Your task to perform on an android device: Search for the best 4k TVs Image 0: 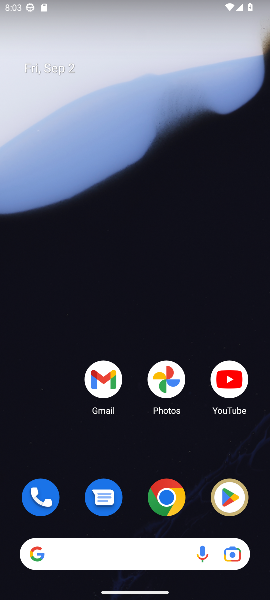
Step 0: click (143, 26)
Your task to perform on an android device: Search for the best 4k TVs Image 1: 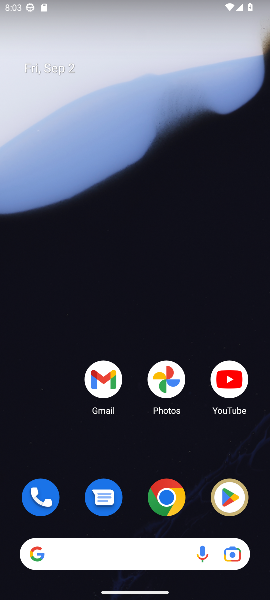
Step 1: click (130, 117)
Your task to perform on an android device: Search for the best 4k TVs Image 2: 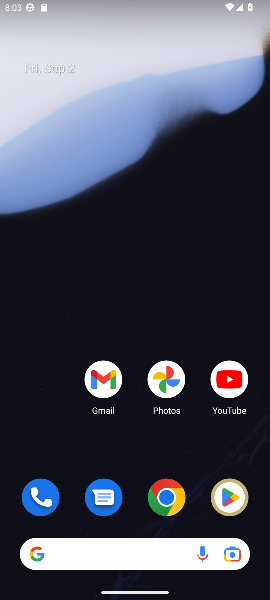
Step 2: drag from (130, 519) to (102, 21)
Your task to perform on an android device: Search for the best 4k TVs Image 3: 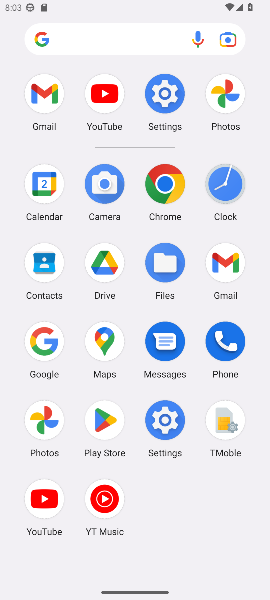
Step 3: click (39, 336)
Your task to perform on an android device: Search for the best 4k TVs Image 4: 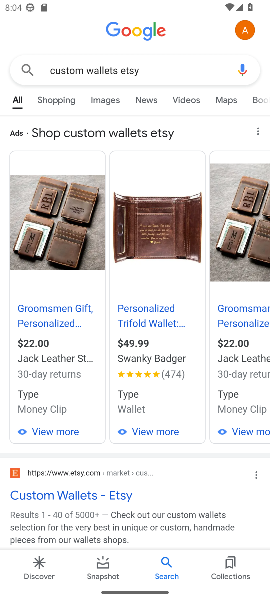
Step 4: click (184, 67)
Your task to perform on an android device: Search for the best 4k TVs Image 5: 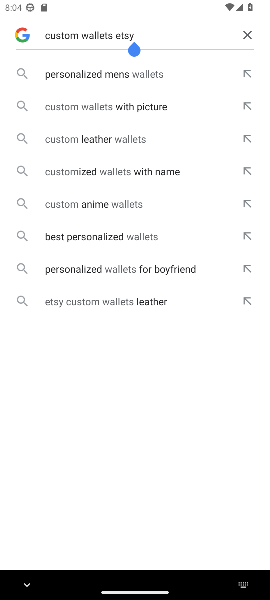
Step 5: click (249, 31)
Your task to perform on an android device: Search for the best 4k TVs Image 6: 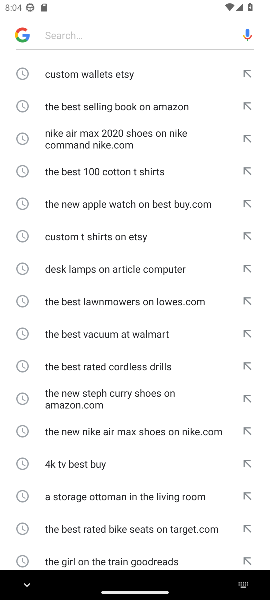
Step 6: type " the best 4k TVs"
Your task to perform on an android device: Search for the best 4k TVs Image 7: 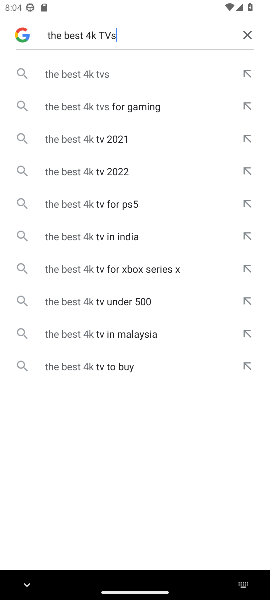
Step 7: click (64, 72)
Your task to perform on an android device: Search for the best 4k TVs Image 8: 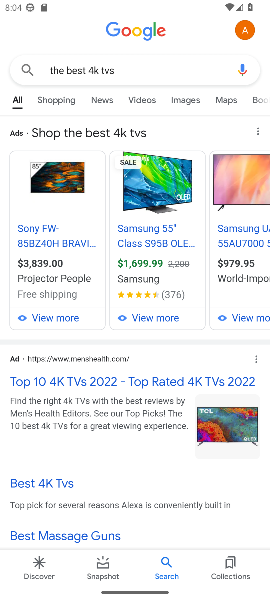
Step 8: click (108, 374)
Your task to perform on an android device: Search for the best 4k TVs Image 9: 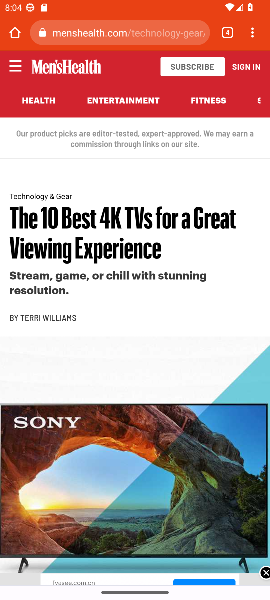
Step 9: task complete